Your task to perform on an android device: read, delete, or share a saved page in the chrome app Image 0: 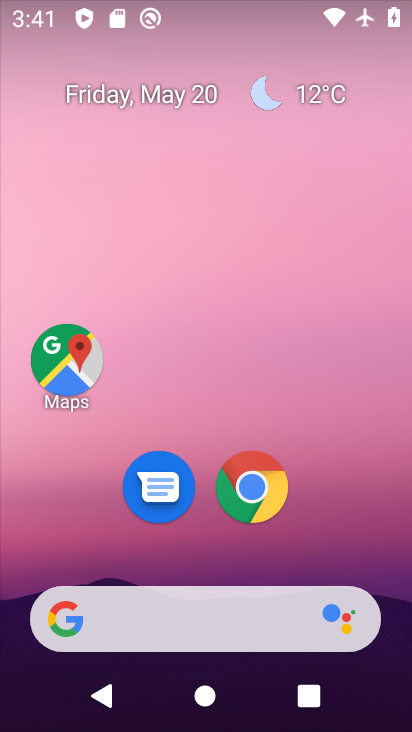
Step 0: drag from (311, 547) to (64, 7)
Your task to perform on an android device: read, delete, or share a saved page in the chrome app Image 1: 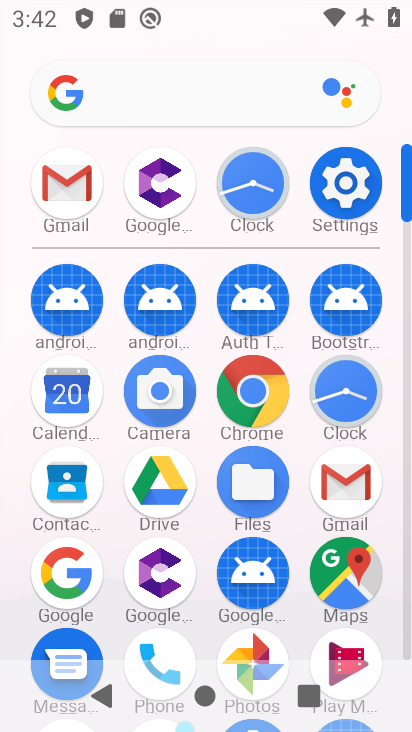
Step 1: click (263, 400)
Your task to perform on an android device: read, delete, or share a saved page in the chrome app Image 2: 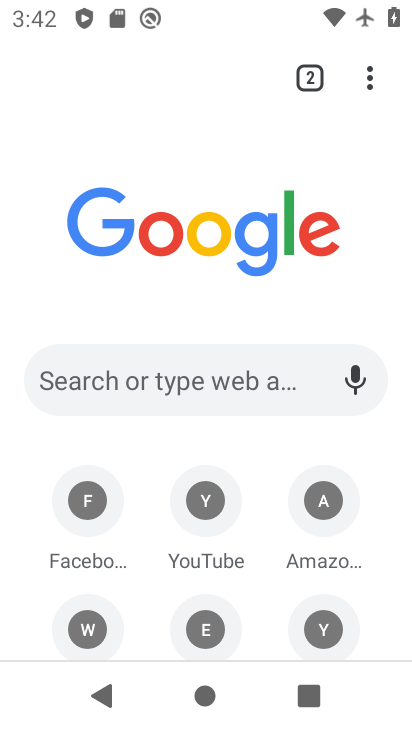
Step 2: task complete